Your task to perform on an android device: set an alarm Image 0: 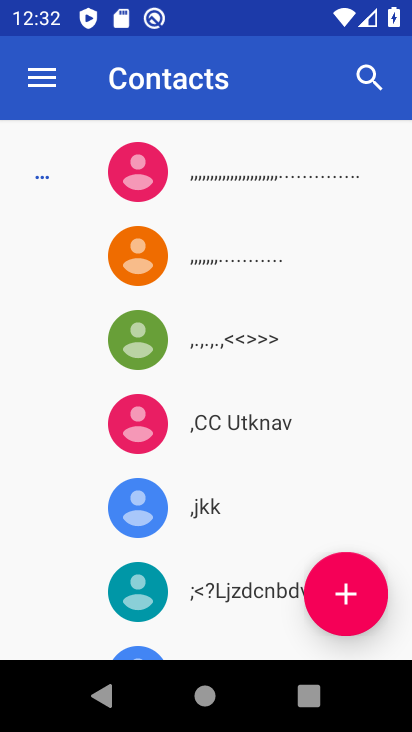
Step 0: press home button
Your task to perform on an android device: set an alarm Image 1: 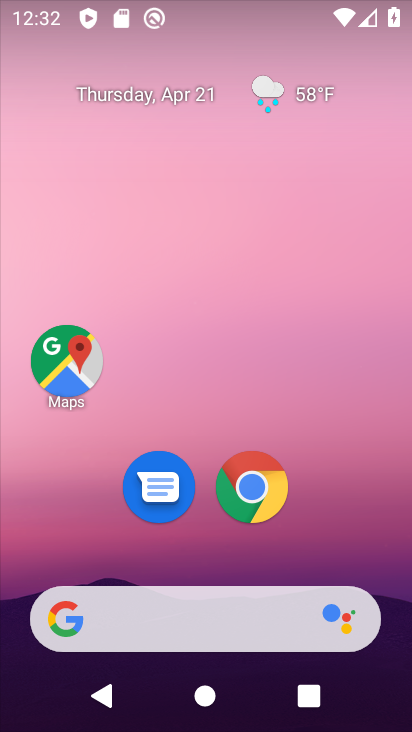
Step 1: drag from (353, 505) to (367, 15)
Your task to perform on an android device: set an alarm Image 2: 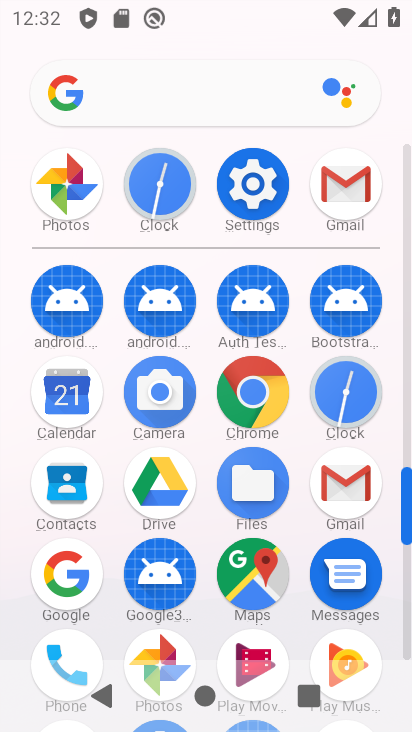
Step 2: click (153, 191)
Your task to perform on an android device: set an alarm Image 3: 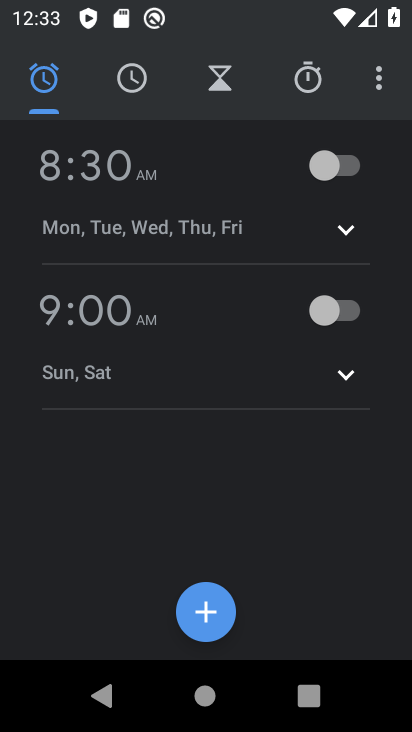
Step 3: click (202, 601)
Your task to perform on an android device: set an alarm Image 4: 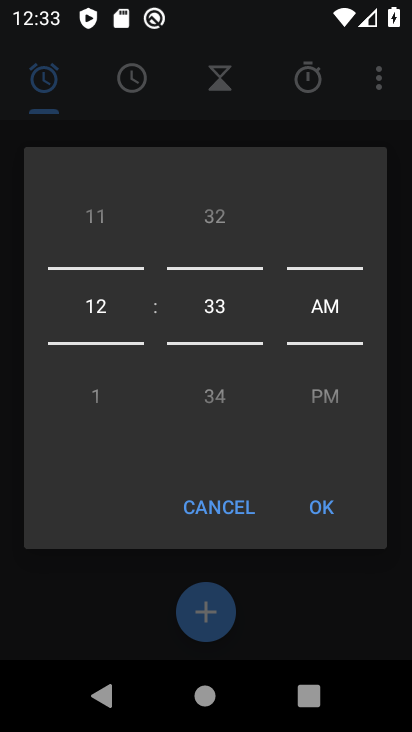
Step 4: drag from (103, 350) to (117, 213)
Your task to perform on an android device: set an alarm Image 5: 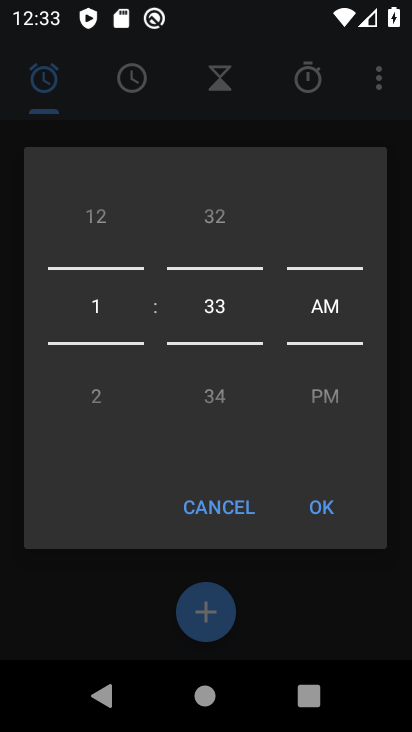
Step 5: drag from (124, 347) to (147, 214)
Your task to perform on an android device: set an alarm Image 6: 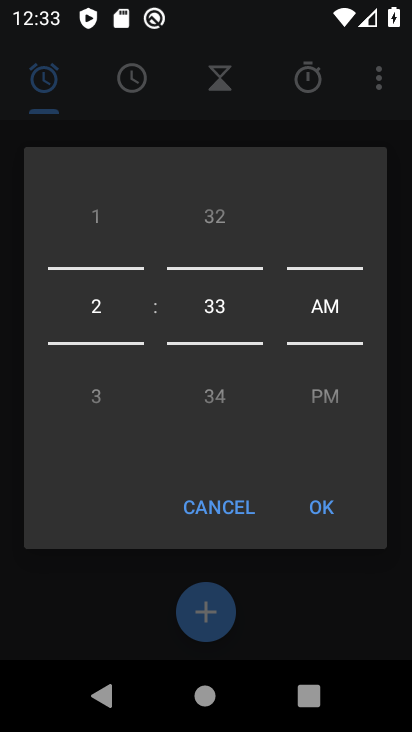
Step 6: drag from (119, 368) to (138, 292)
Your task to perform on an android device: set an alarm Image 7: 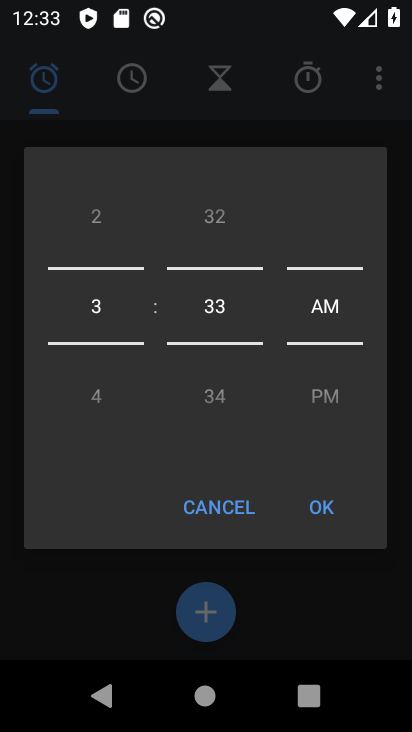
Step 7: drag from (105, 384) to (133, 171)
Your task to perform on an android device: set an alarm Image 8: 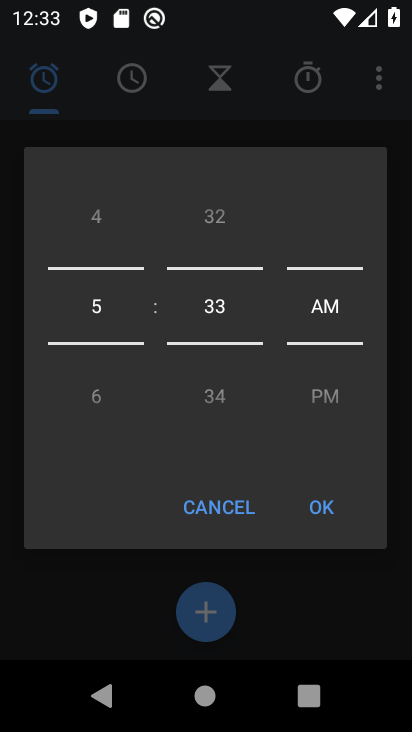
Step 8: drag from (219, 316) to (216, 436)
Your task to perform on an android device: set an alarm Image 9: 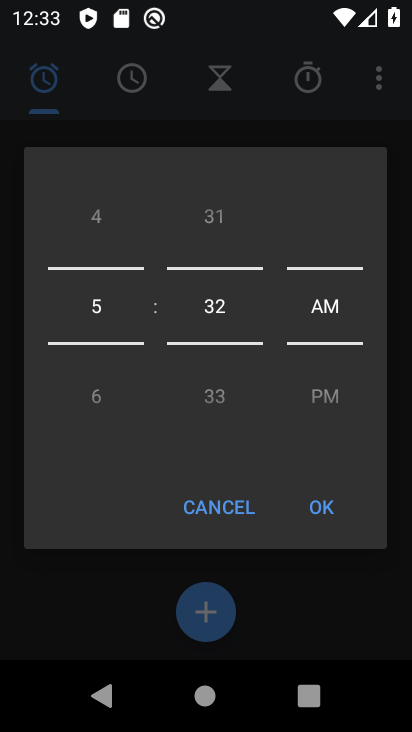
Step 9: drag from (224, 290) to (204, 431)
Your task to perform on an android device: set an alarm Image 10: 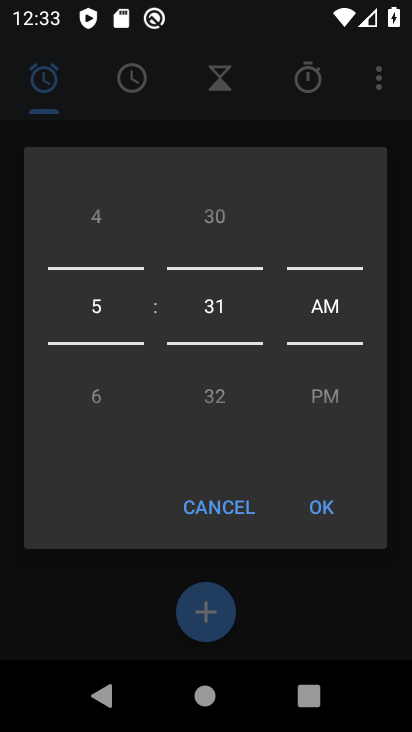
Step 10: drag from (219, 320) to (220, 402)
Your task to perform on an android device: set an alarm Image 11: 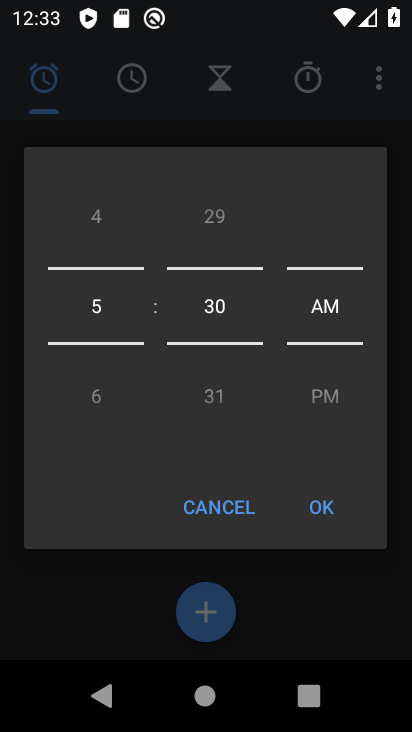
Step 11: click (324, 510)
Your task to perform on an android device: set an alarm Image 12: 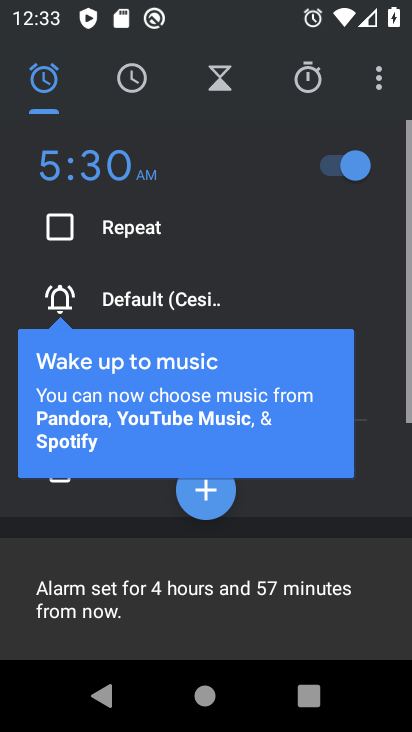
Step 12: task complete